Your task to perform on an android device: star an email in the gmail app Image 0: 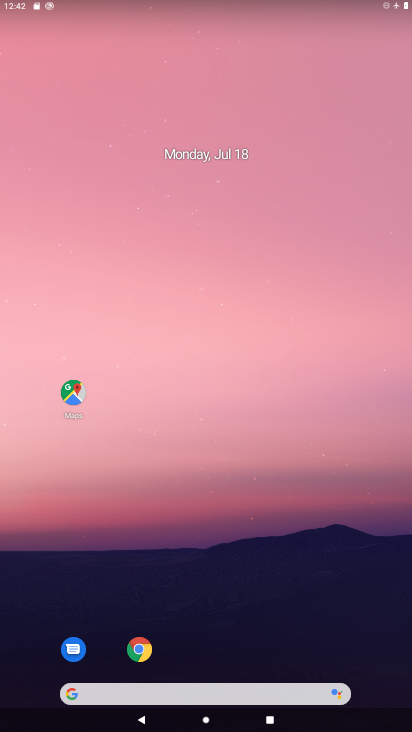
Step 0: drag from (59, 562) to (194, 127)
Your task to perform on an android device: star an email in the gmail app Image 1: 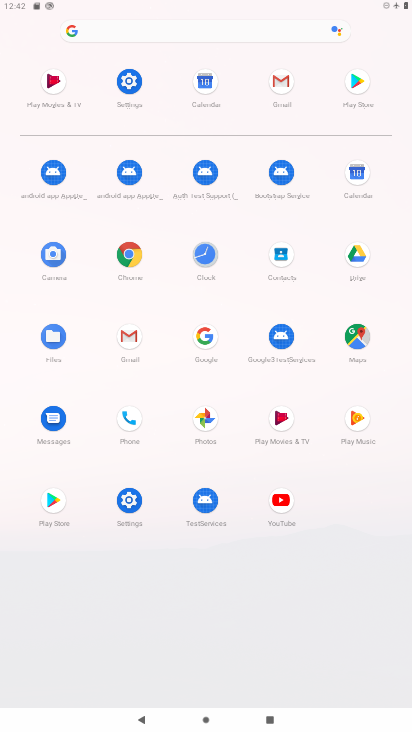
Step 1: click (129, 351)
Your task to perform on an android device: star an email in the gmail app Image 2: 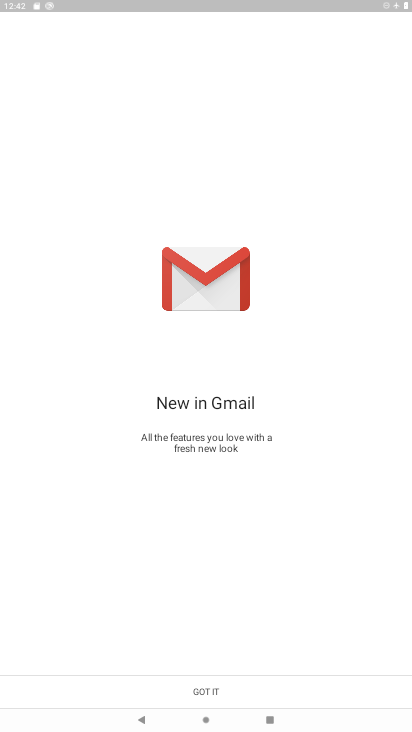
Step 2: click (223, 683)
Your task to perform on an android device: star an email in the gmail app Image 3: 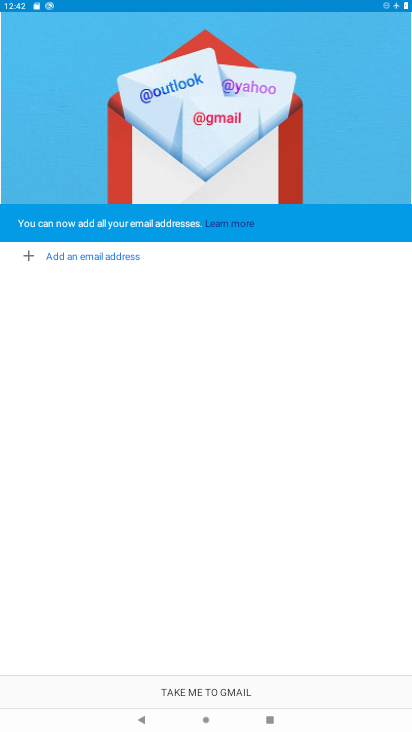
Step 3: click (190, 685)
Your task to perform on an android device: star an email in the gmail app Image 4: 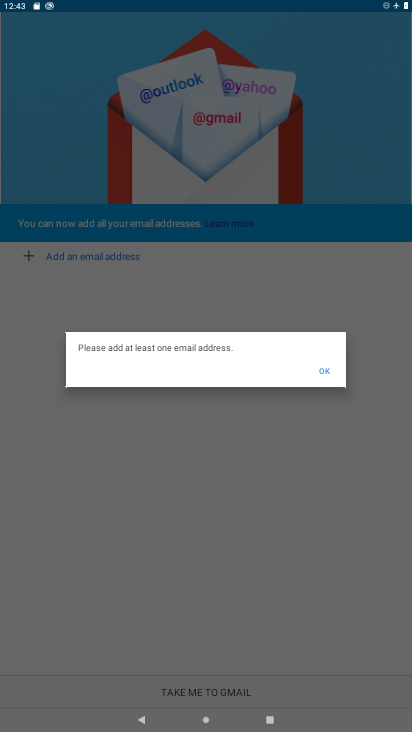
Step 4: click (330, 373)
Your task to perform on an android device: star an email in the gmail app Image 5: 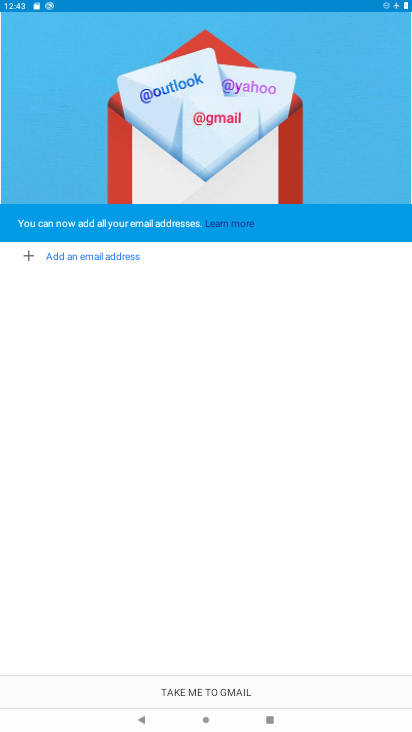
Step 5: task complete